Your task to perform on an android device: Open the calendar and show me this week's events? Image 0: 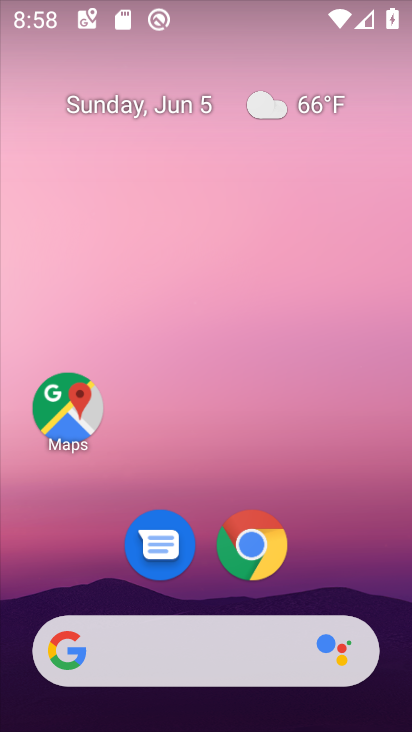
Step 0: drag from (356, 586) to (354, 224)
Your task to perform on an android device: Open the calendar and show me this week's events? Image 1: 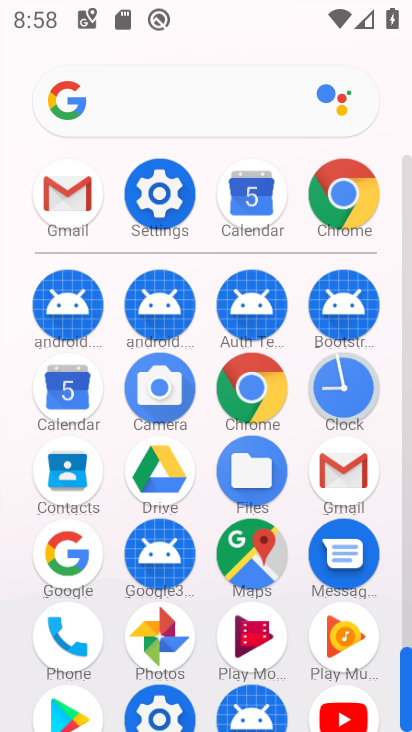
Step 1: click (81, 394)
Your task to perform on an android device: Open the calendar and show me this week's events? Image 2: 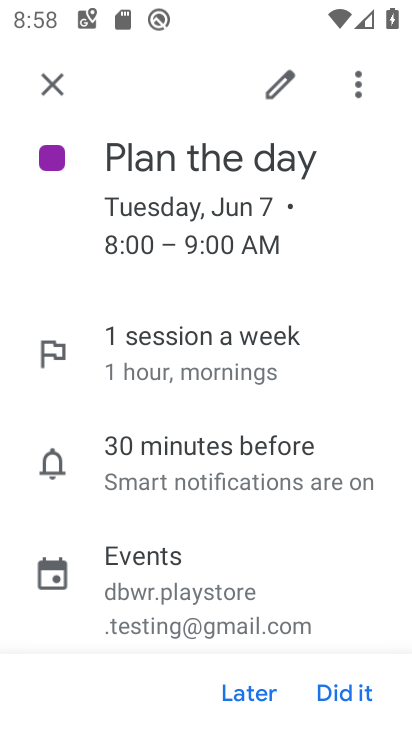
Step 2: task complete